Your task to perform on an android device: turn off translation in the chrome app Image 0: 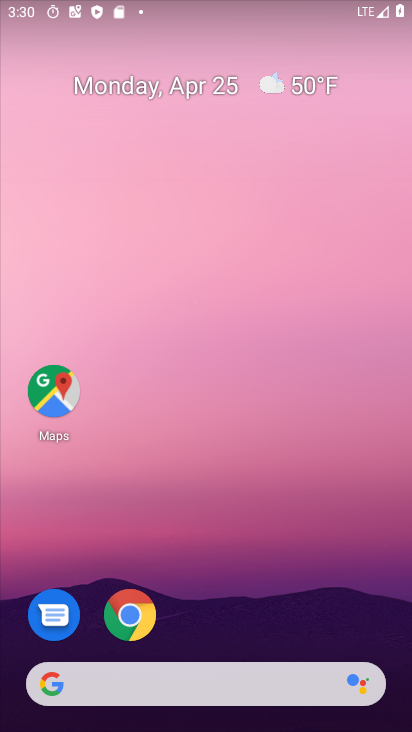
Step 0: click (124, 613)
Your task to perform on an android device: turn off translation in the chrome app Image 1: 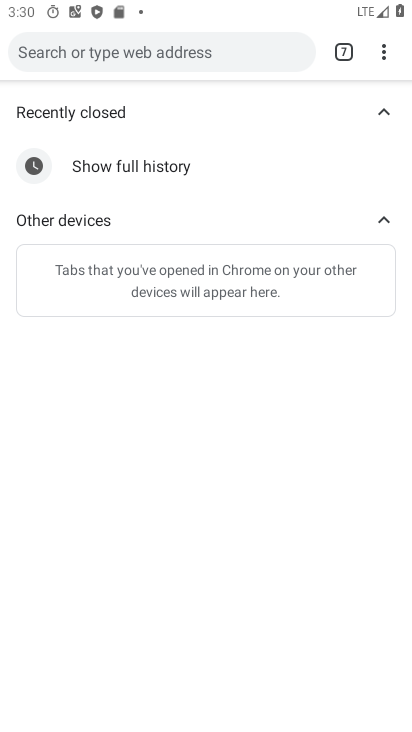
Step 1: drag from (384, 54) to (259, 500)
Your task to perform on an android device: turn off translation in the chrome app Image 2: 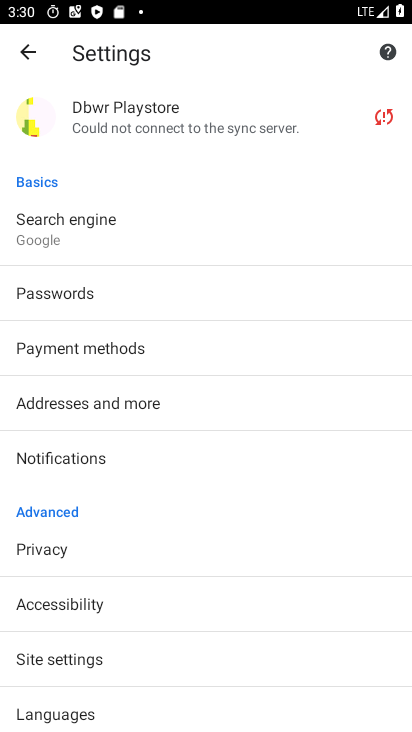
Step 2: drag from (140, 692) to (140, 340)
Your task to perform on an android device: turn off translation in the chrome app Image 3: 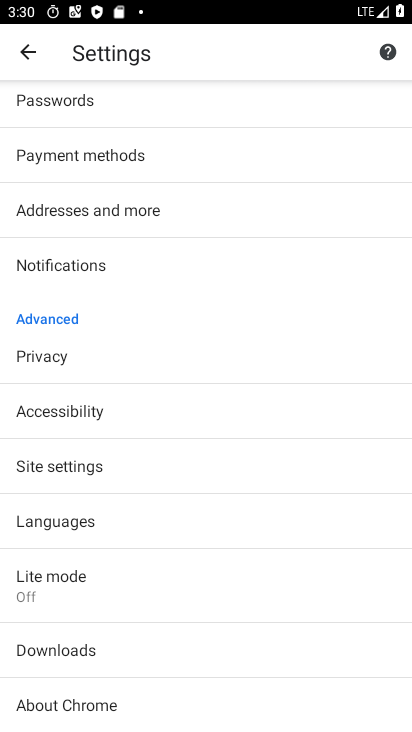
Step 3: click (48, 520)
Your task to perform on an android device: turn off translation in the chrome app Image 4: 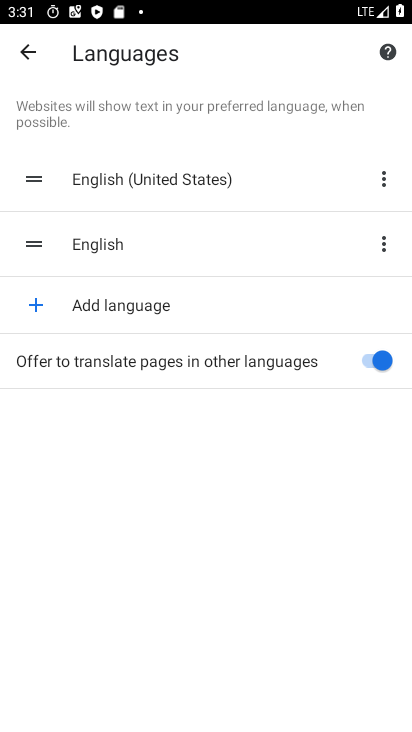
Step 4: click (365, 357)
Your task to perform on an android device: turn off translation in the chrome app Image 5: 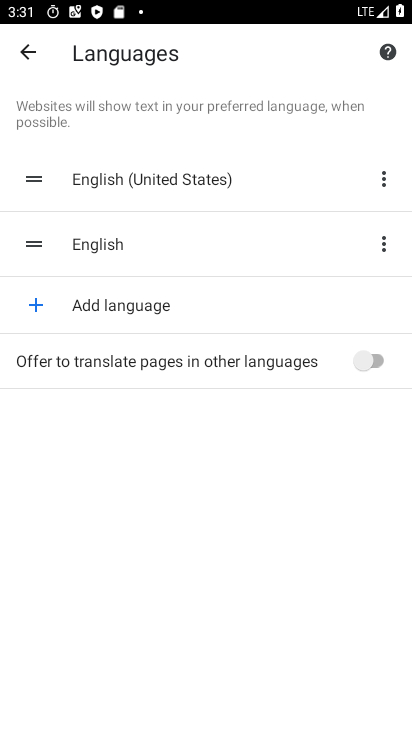
Step 5: task complete